Your task to perform on an android device: When is my next appointment? Image 0: 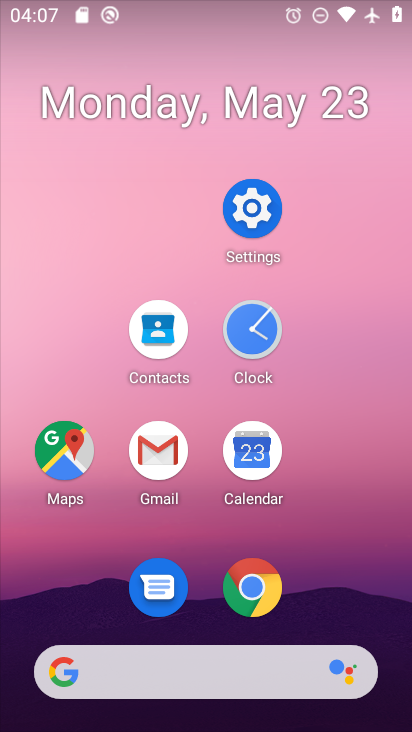
Step 0: click (262, 431)
Your task to perform on an android device: When is my next appointment? Image 1: 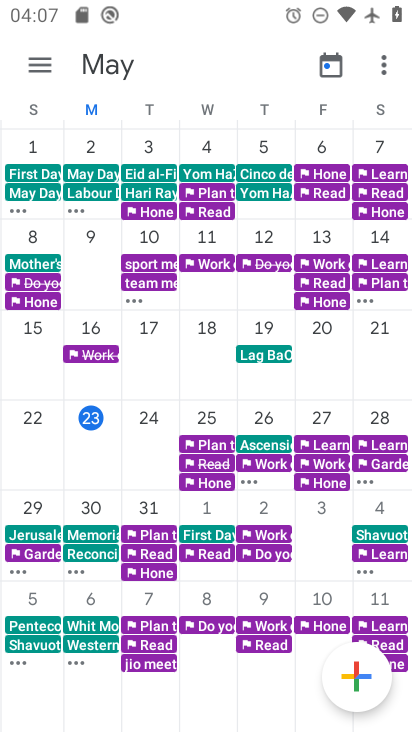
Step 1: task complete